Your task to perform on an android device: Go to notification settings Image 0: 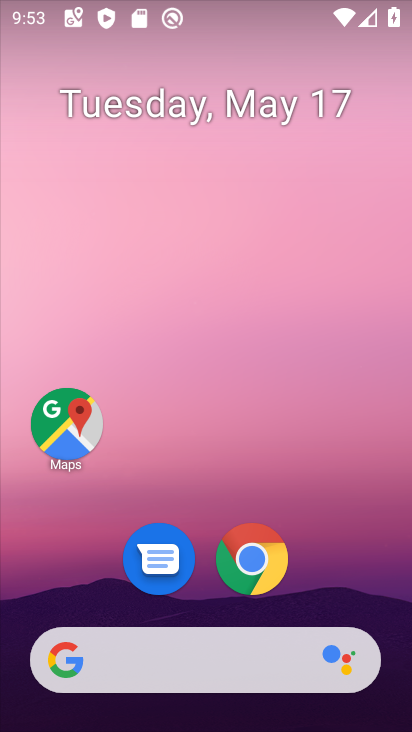
Step 0: drag from (163, 717) to (247, 5)
Your task to perform on an android device: Go to notification settings Image 1: 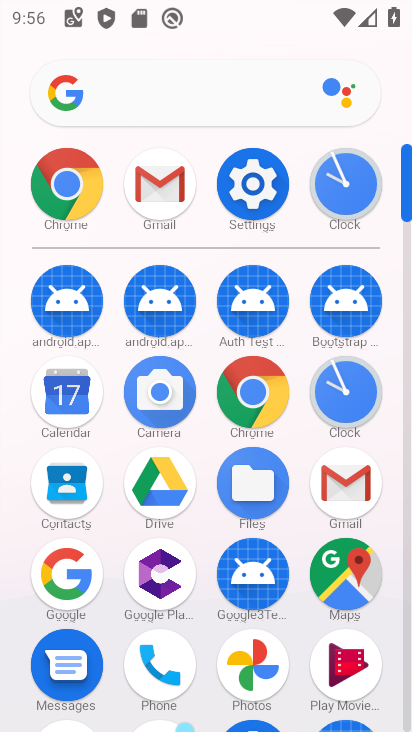
Step 1: click (244, 190)
Your task to perform on an android device: Go to notification settings Image 2: 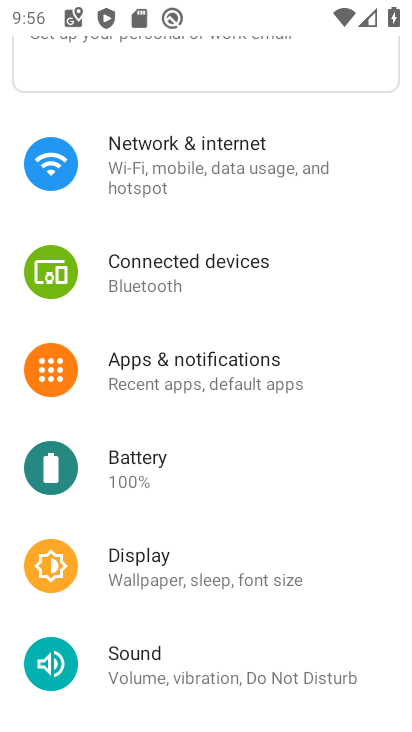
Step 2: click (208, 374)
Your task to perform on an android device: Go to notification settings Image 3: 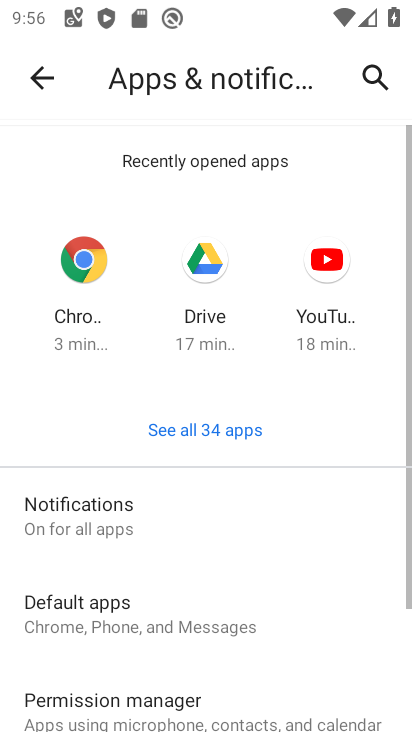
Step 3: task complete